Your task to perform on an android device: Do I have any events today? Image 0: 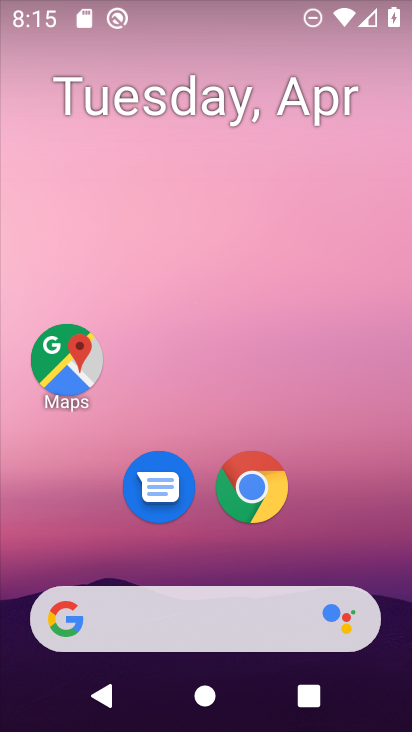
Step 0: drag from (205, 589) to (209, 376)
Your task to perform on an android device: Do I have any events today? Image 1: 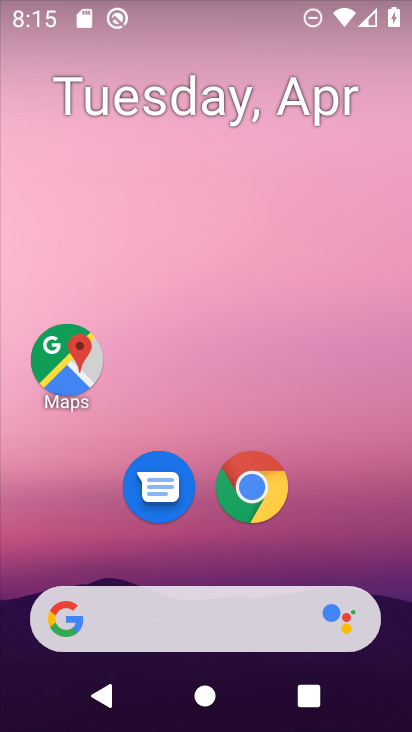
Step 1: drag from (194, 529) to (198, 266)
Your task to perform on an android device: Do I have any events today? Image 2: 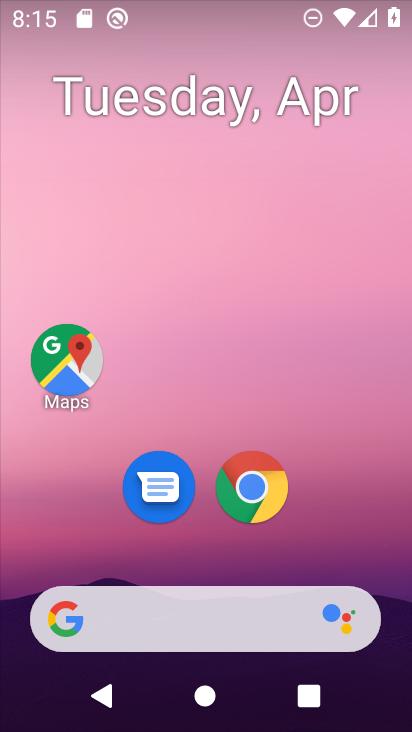
Step 2: drag from (232, 580) to (232, 262)
Your task to perform on an android device: Do I have any events today? Image 3: 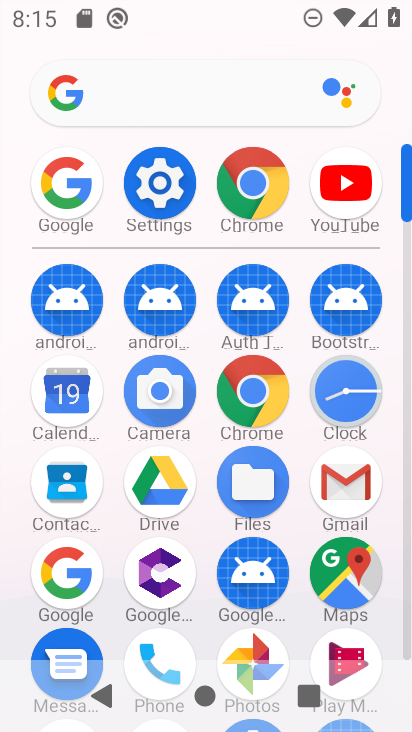
Step 3: click (75, 391)
Your task to perform on an android device: Do I have any events today? Image 4: 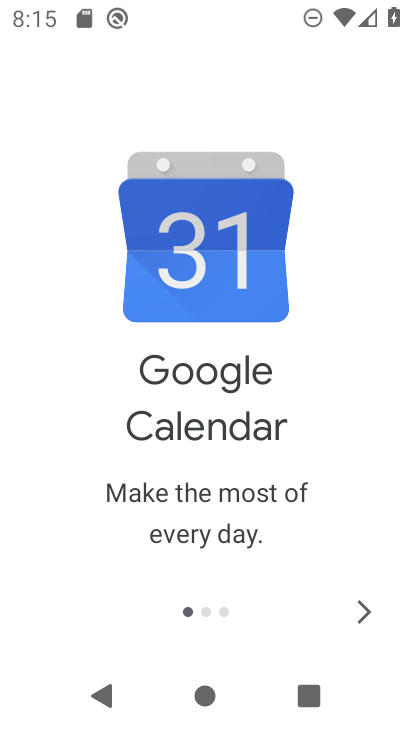
Step 4: click (355, 618)
Your task to perform on an android device: Do I have any events today? Image 5: 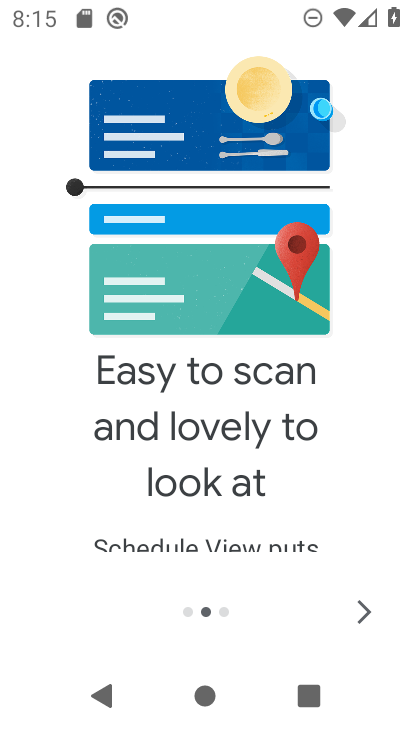
Step 5: click (355, 618)
Your task to perform on an android device: Do I have any events today? Image 6: 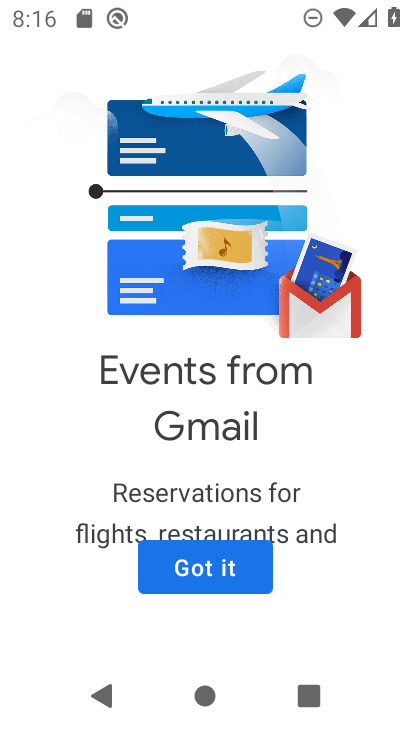
Step 6: click (230, 565)
Your task to perform on an android device: Do I have any events today? Image 7: 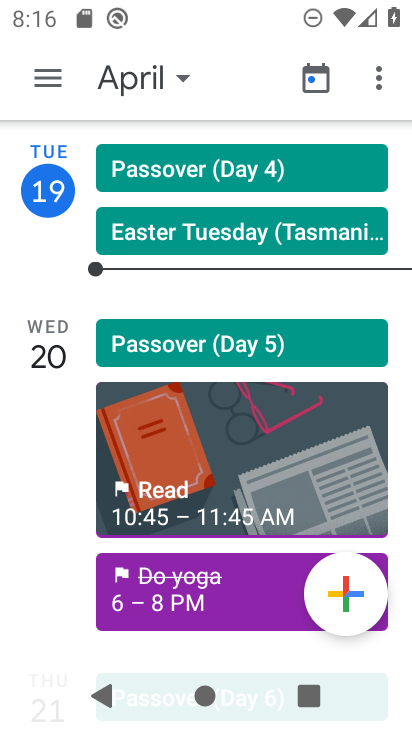
Step 7: click (144, 84)
Your task to perform on an android device: Do I have any events today? Image 8: 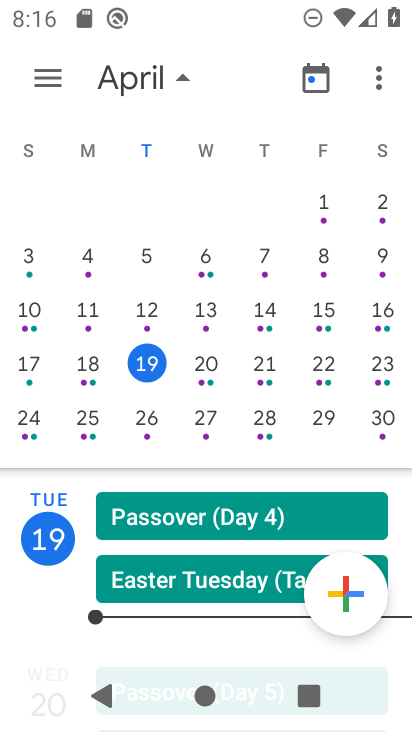
Step 8: click (205, 370)
Your task to perform on an android device: Do I have any events today? Image 9: 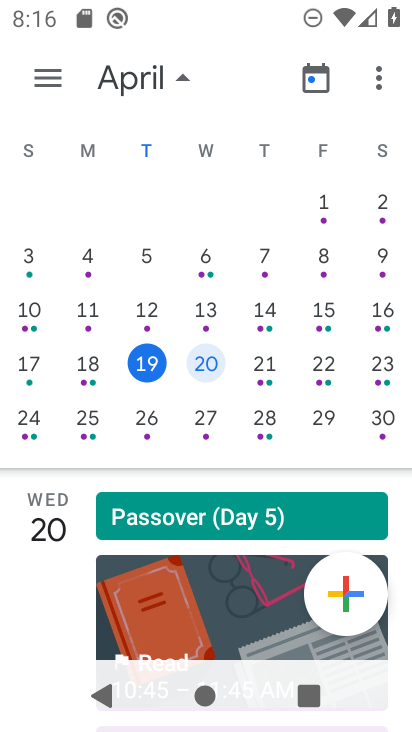
Step 9: task complete